Your task to perform on an android device: Open display settings Image 0: 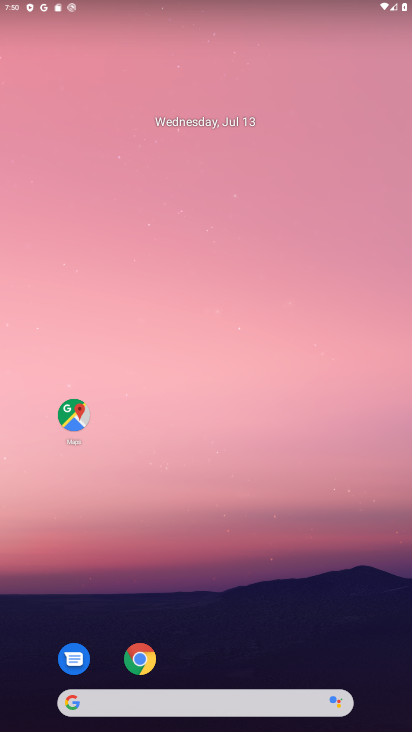
Step 0: drag from (294, 650) to (351, 98)
Your task to perform on an android device: Open display settings Image 1: 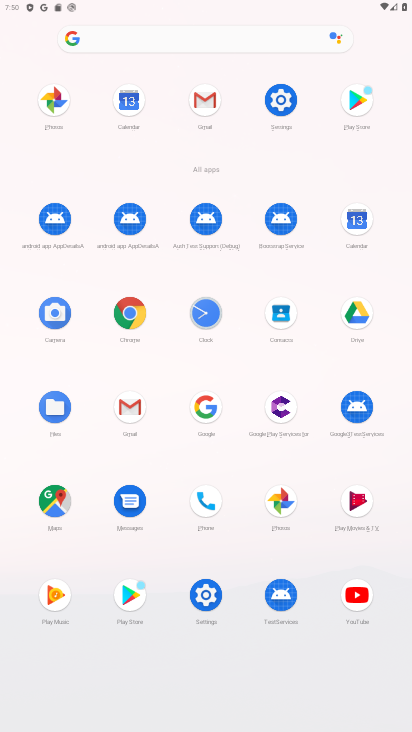
Step 1: click (278, 105)
Your task to perform on an android device: Open display settings Image 2: 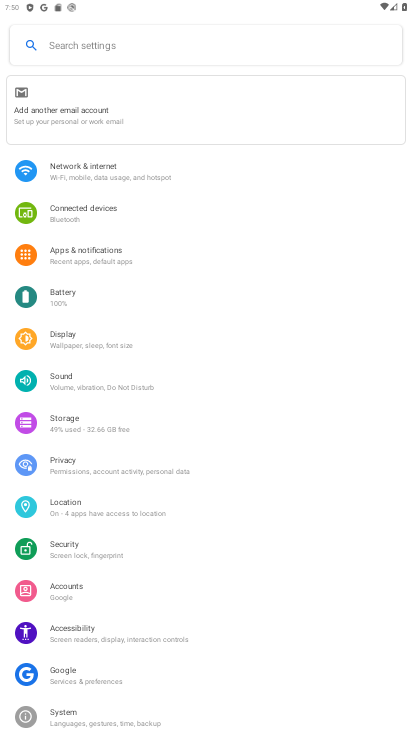
Step 2: click (137, 344)
Your task to perform on an android device: Open display settings Image 3: 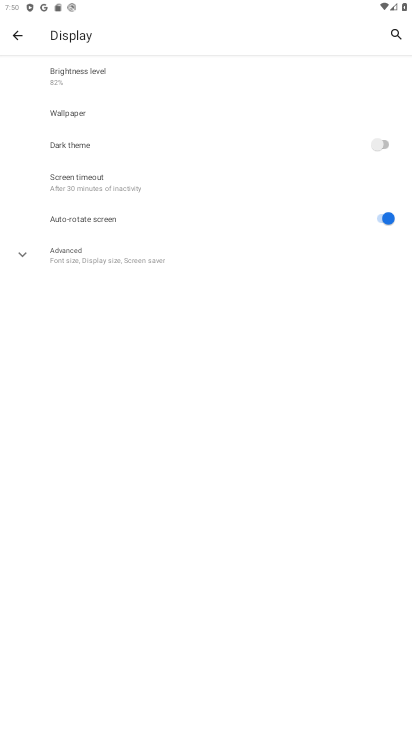
Step 3: task complete